Your task to perform on an android device: all mails in gmail Image 0: 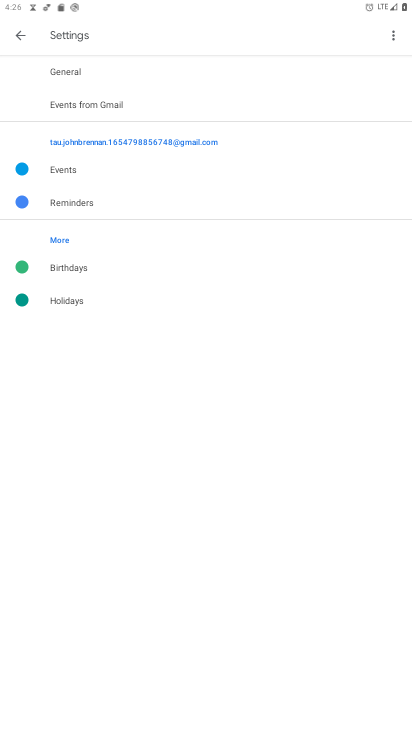
Step 0: press home button
Your task to perform on an android device: all mails in gmail Image 1: 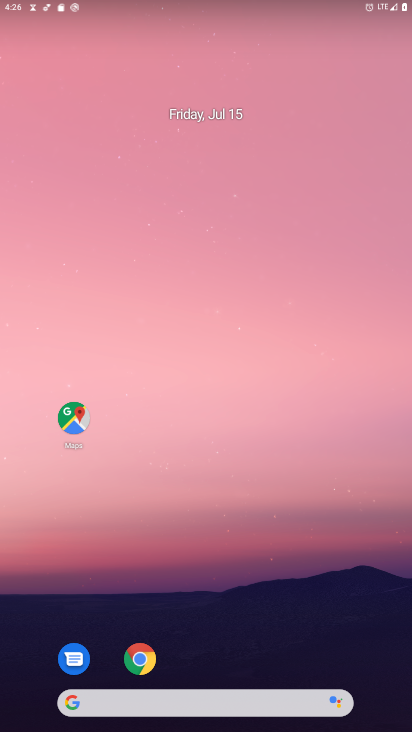
Step 1: drag from (196, 641) to (296, 39)
Your task to perform on an android device: all mails in gmail Image 2: 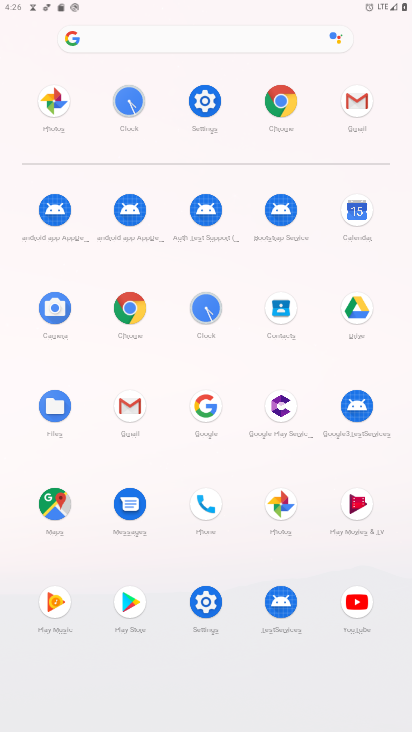
Step 2: click (131, 413)
Your task to perform on an android device: all mails in gmail Image 3: 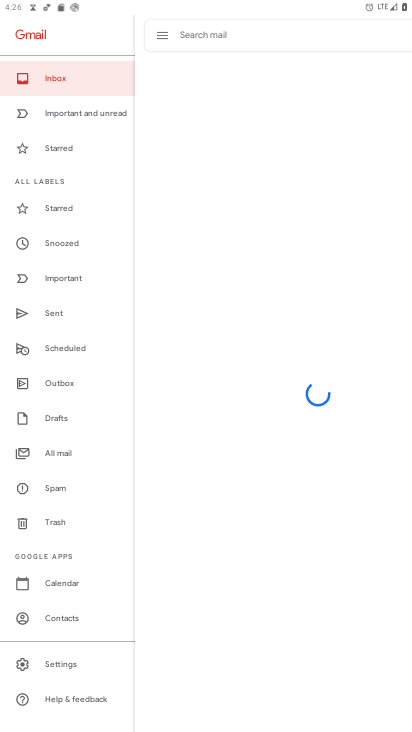
Step 3: click (56, 451)
Your task to perform on an android device: all mails in gmail Image 4: 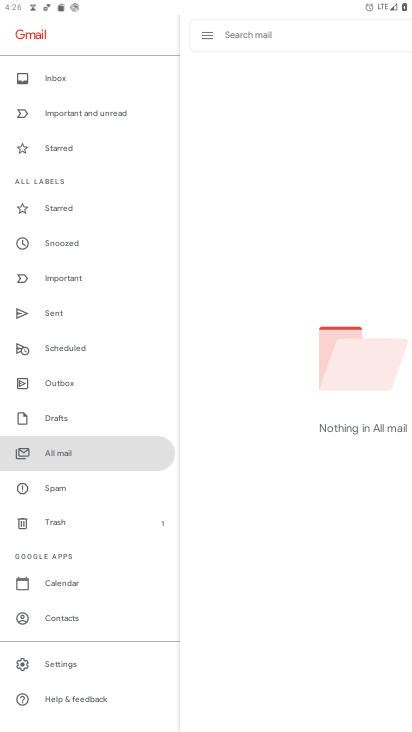
Step 4: task complete